Your task to perform on an android device: Open the calendar and show me this week's events? Image 0: 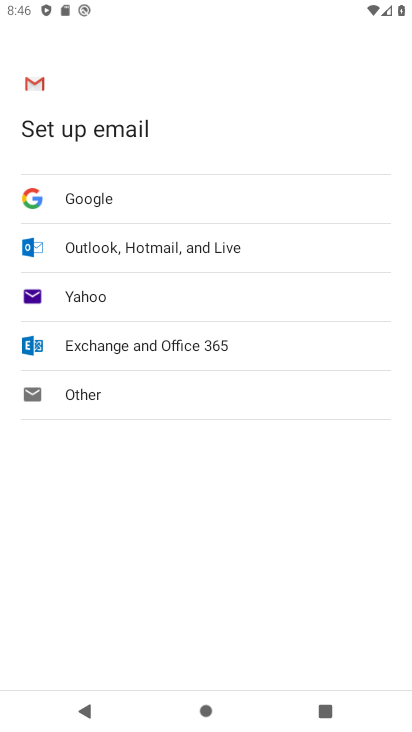
Step 0: press back button
Your task to perform on an android device: Open the calendar and show me this week's events? Image 1: 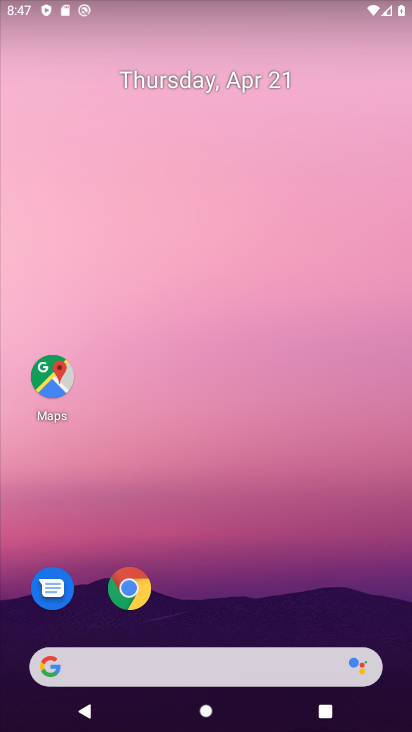
Step 1: drag from (318, 522) to (341, 19)
Your task to perform on an android device: Open the calendar and show me this week's events? Image 2: 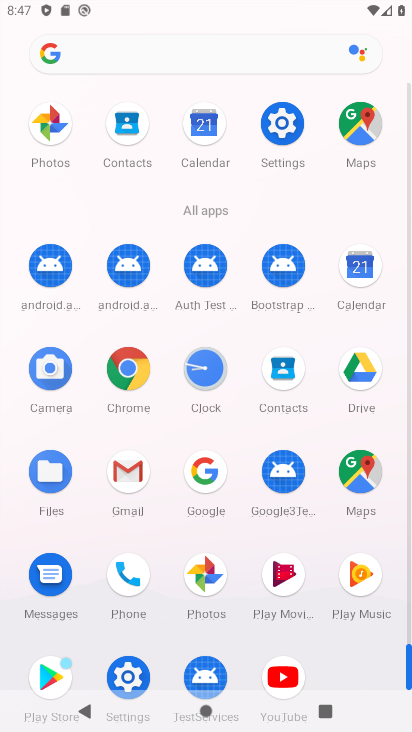
Step 2: click (360, 264)
Your task to perform on an android device: Open the calendar and show me this week's events? Image 3: 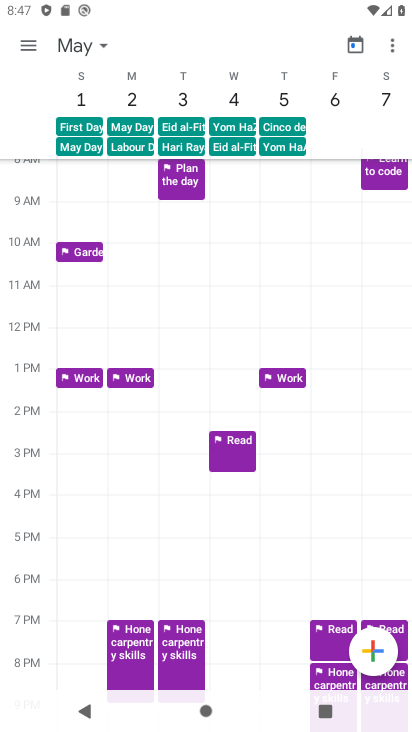
Step 3: click (42, 49)
Your task to perform on an android device: Open the calendar and show me this week's events? Image 4: 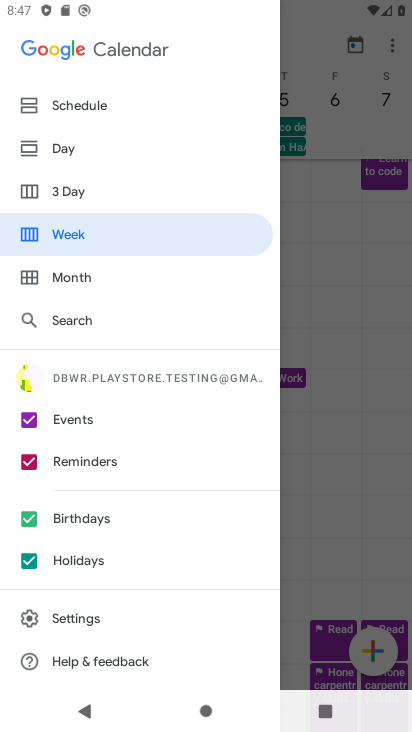
Step 4: click (320, 186)
Your task to perform on an android device: Open the calendar and show me this week's events? Image 5: 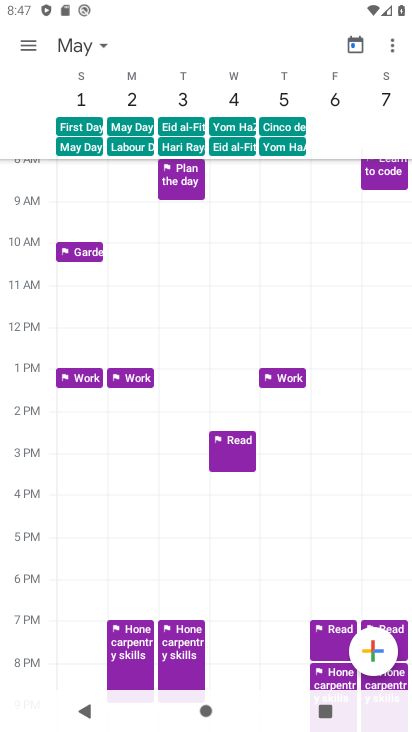
Step 5: click (35, 52)
Your task to perform on an android device: Open the calendar and show me this week's events? Image 6: 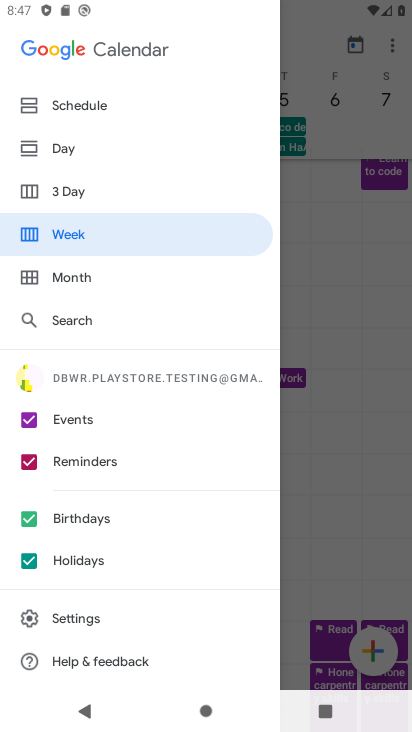
Step 6: click (25, 556)
Your task to perform on an android device: Open the calendar and show me this week's events? Image 7: 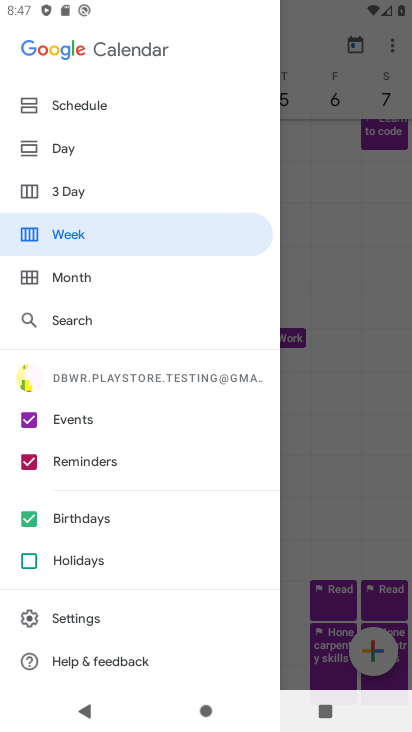
Step 7: click (29, 514)
Your task to perform on an android device: Open the calendar and show me this week's events? Image 8: 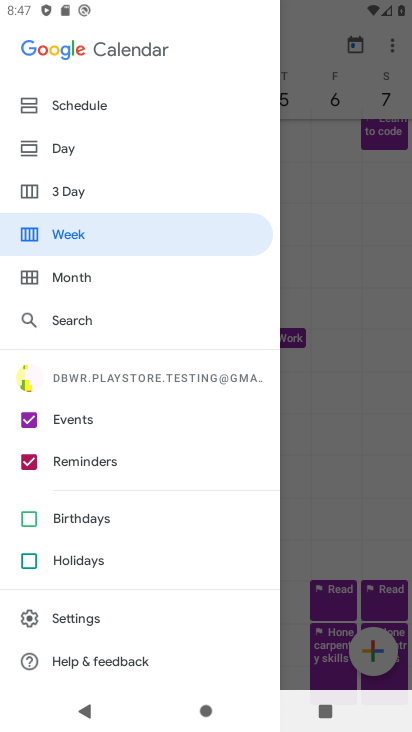
Step 8: click (27, 454)
Your task to perform on an android device: Open the calendar and show me this week's events? Image 9: 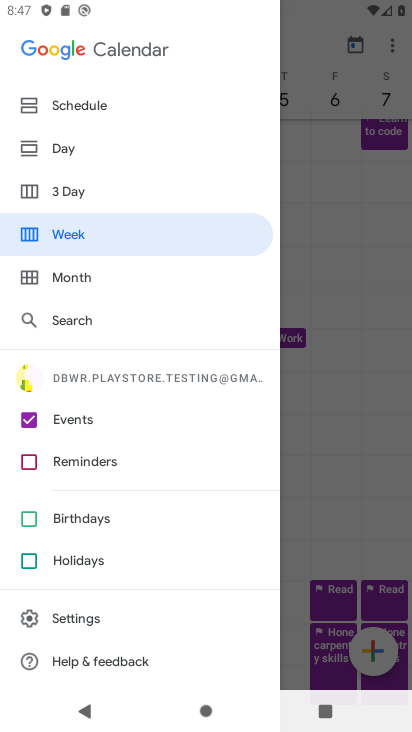
Step 9: click (316, 395)
Your task to perform on an android device: Open the calendar and show me this week's events? Image 10: 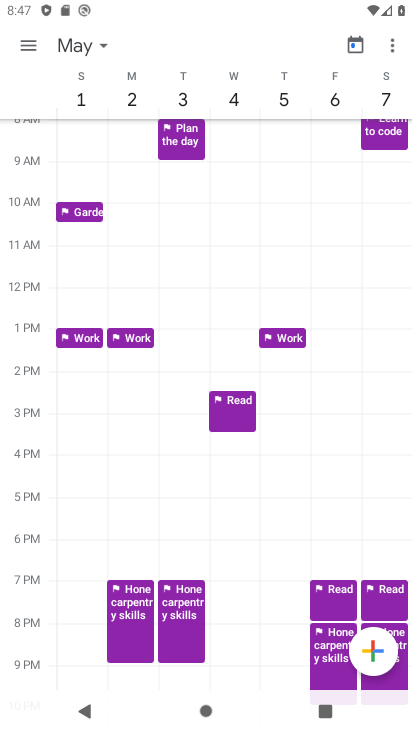
Step 10: click (353, 43)
Your task to perform on an android device: Open the calendar and show me this week's events? Image 11: 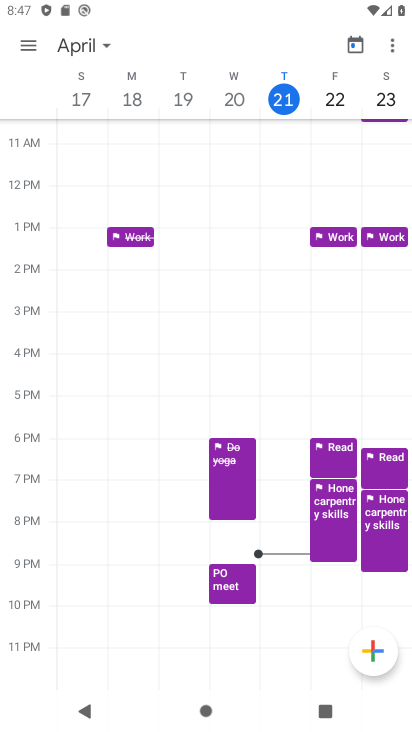
Step 11: task complete